Your task to perform on an android device: Go to Yahoo.com Image 0: 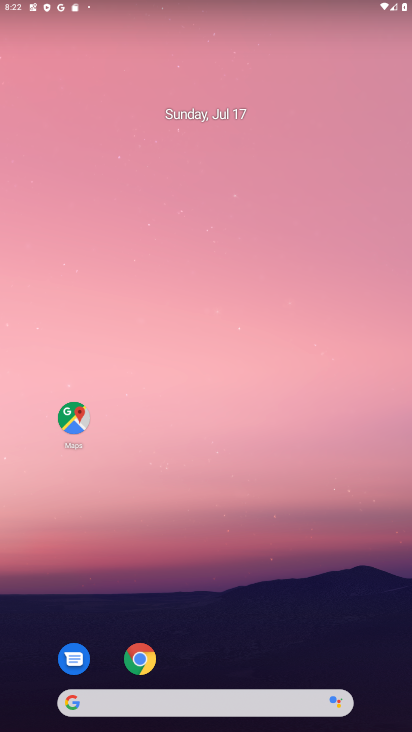
Step 0: click (116, 705)
Your task to perform on an android device: Go to Yahoo.com Image 1: 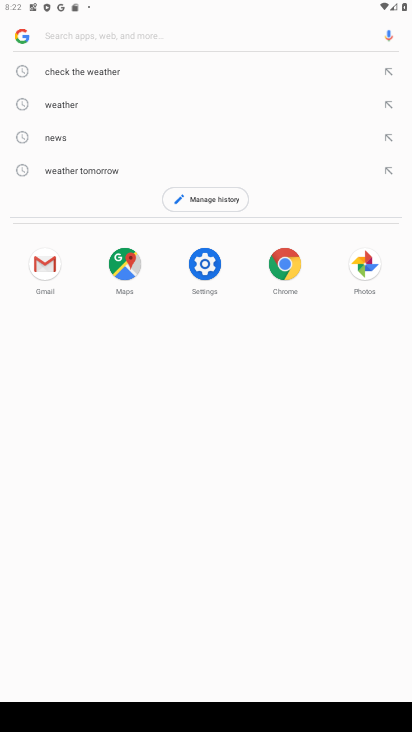
Step 1: type "Yahoo.com"
Your task to perform on an android device: Go to Yahoo.com Image 2: 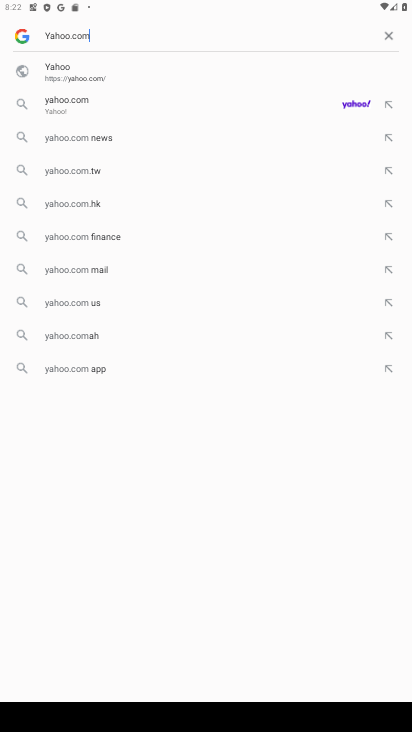
Step 2: press enter
Your task to perform on an android device: Go to Yahoo.com Image 3: 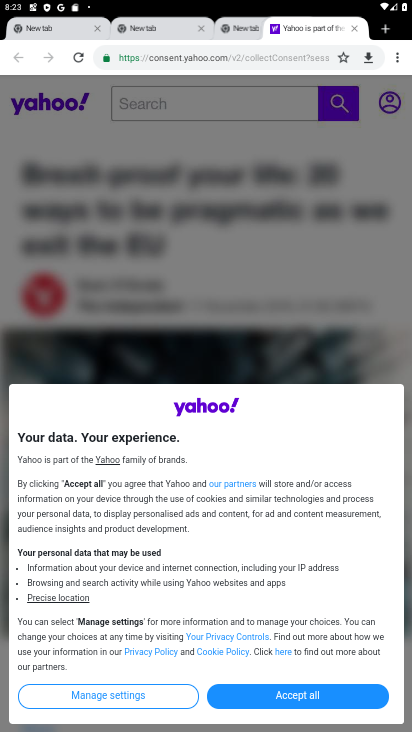
Step 3: task complete